Your task to perform on an android device: Open calendar and show me the fourth week of next month Image 0: 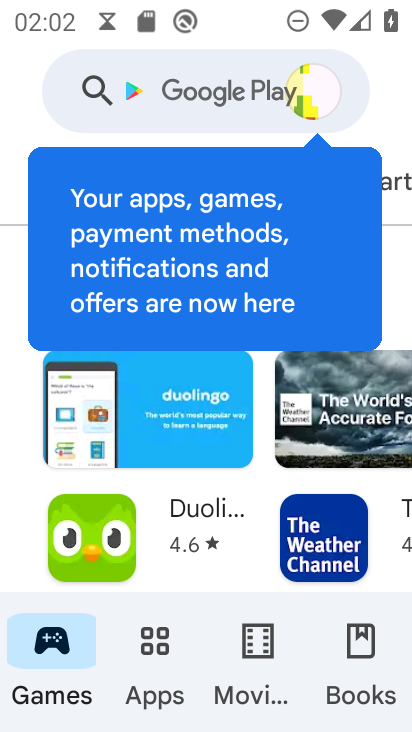
Step 0: press home button
Your task to perform on an android device: Open calendar and show me the fourth week of next month Image 1: 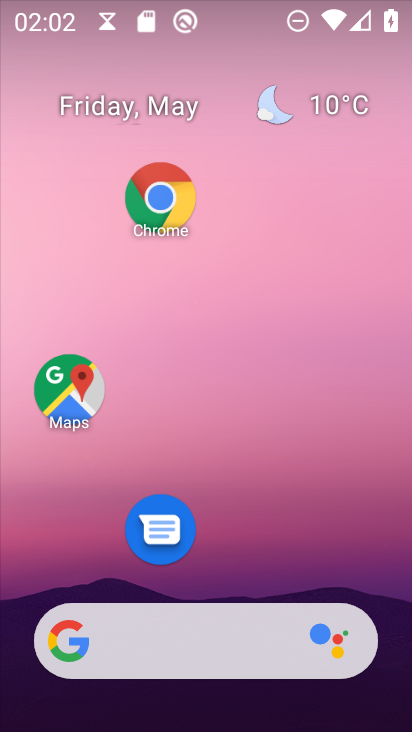
Step 1: drag from (273, 440) to (278, 204)
Your task to perform on an android device: Open calendar and show me the fourth week of next month Image 2: 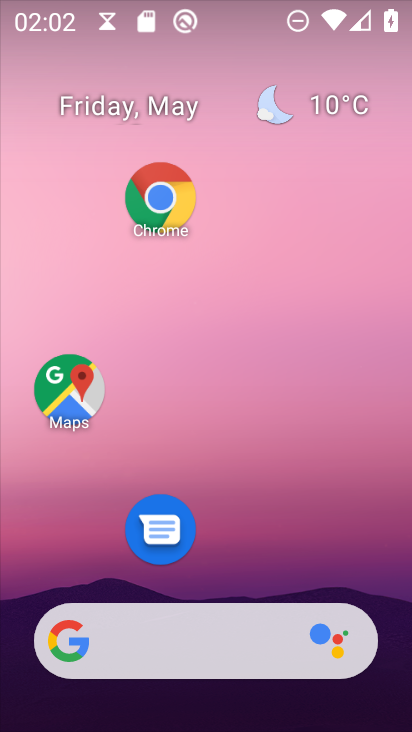
Step 2: drag from (270, 575) to (241, 221)
Your task to perform on an android device: Open calendar and show me the fourth week of next month Image 3: 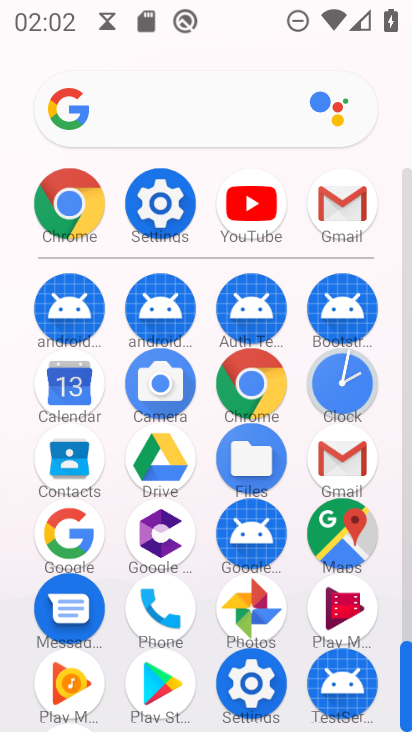
Step 3: click (66, 389)
Your task to perform on an android device: Open calendar and show me the fourth week of next month Image 4: 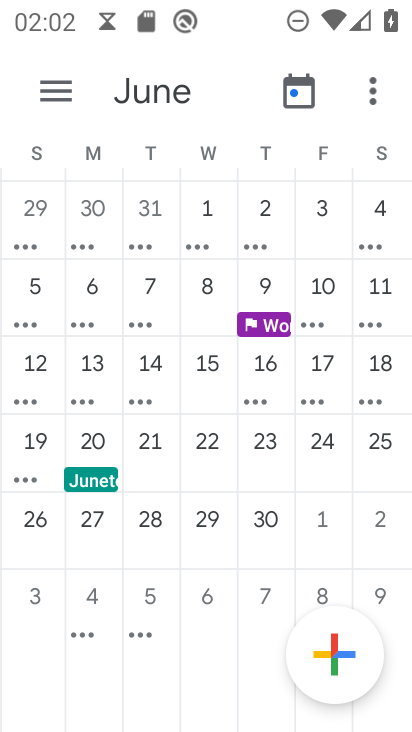
Step 4: task complete